Your task to perform on an android device: Search for bose soundlink mini on ebay.com, select the first entry, add it to the cart, then select checkout. Image 0: 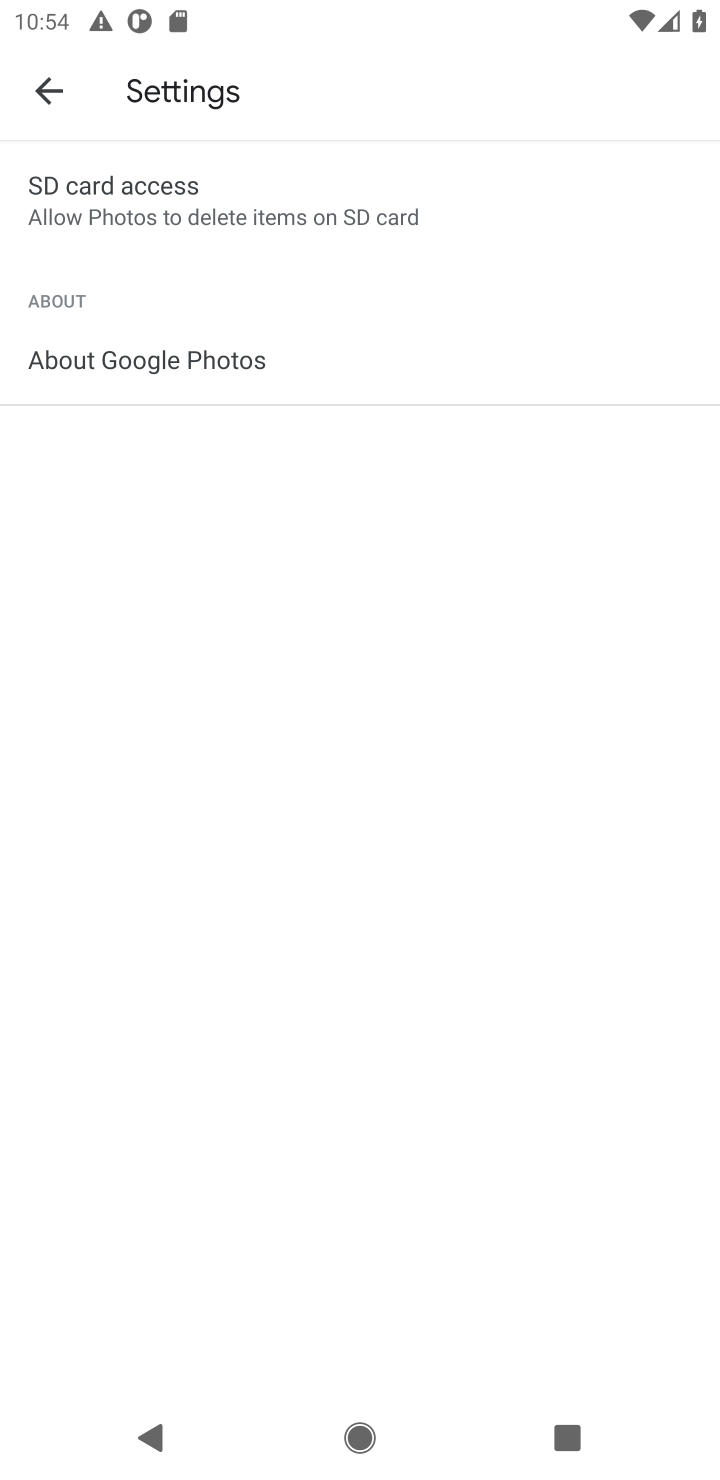
Step 0: press home button
Your task to perform on an android device: Search for bose soundlink mini on ebay.com, select the first entry, add it to the cart, then select checkout. Image 1: 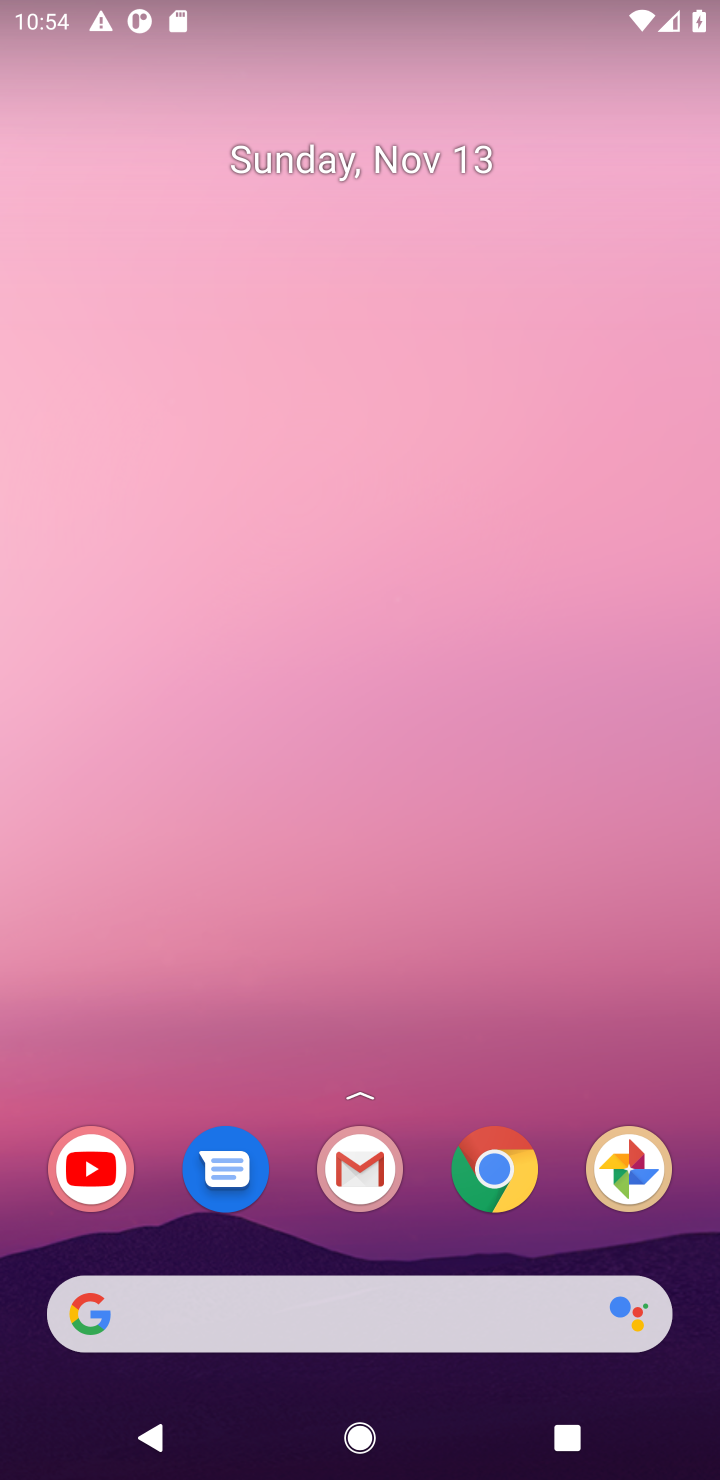
Step 1: drag from (420, 1254) to (430, 206)
Your task to perform on an android device: Search for bose soundlink mini on ebay.com, select the first entry, add it to the cart, then select checkout. Image 2: 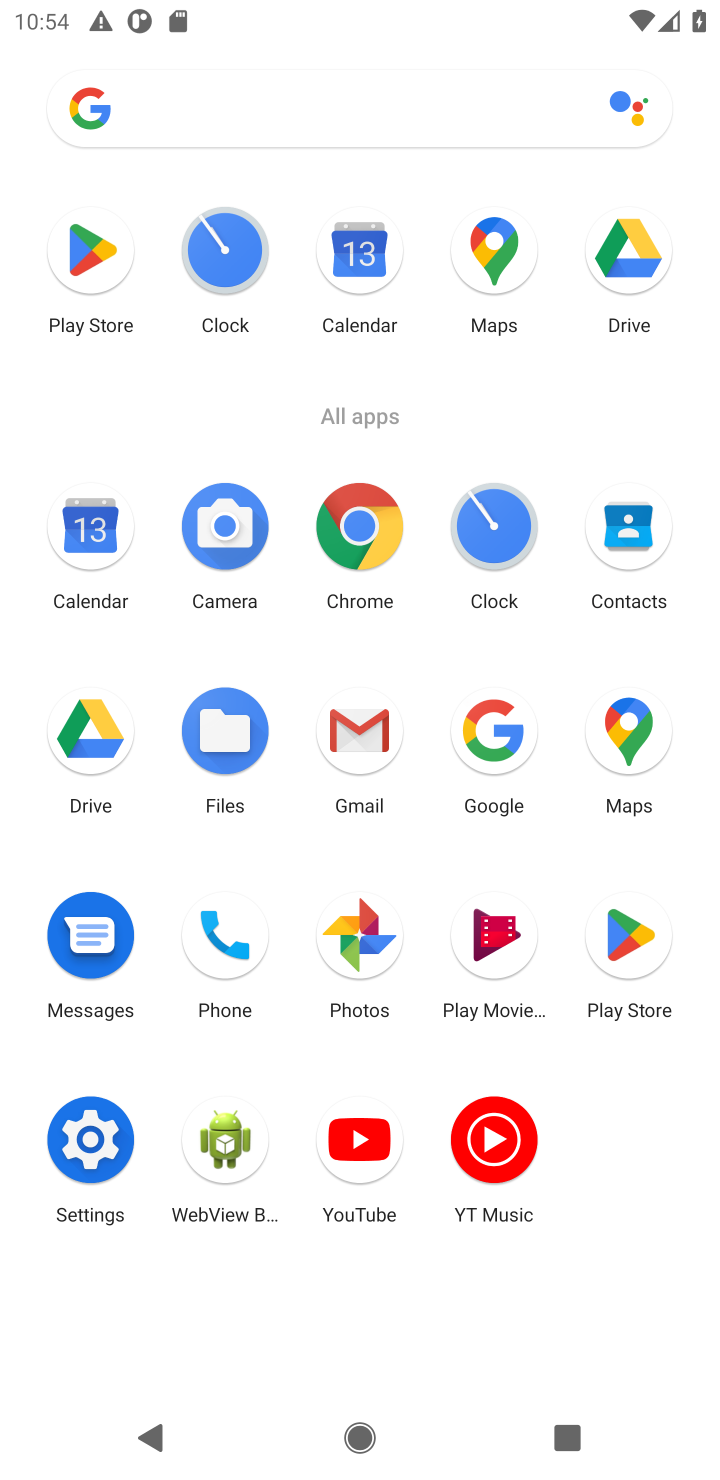
Step 2: click (359, 530)
Your task to perform on an android device: Search for bose soundlink mini on ebay.com, select the first entry, add it to the cart, then select checkout. Image 3: 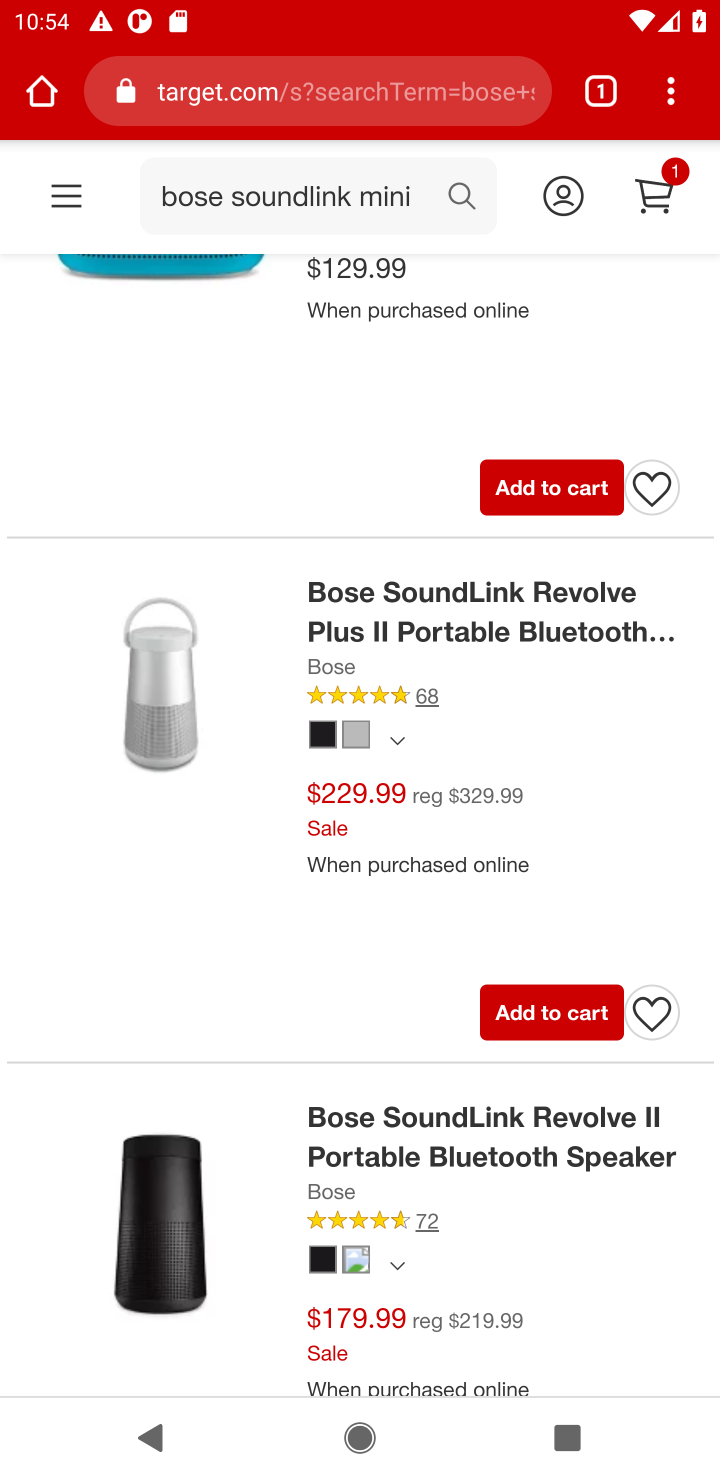
Step 3: click (359, 101)
Your task to perform on an android device: Search for bose soundlink mini on ebay.com, select the first entry, add it to the cart, then select checkout. Image 4: 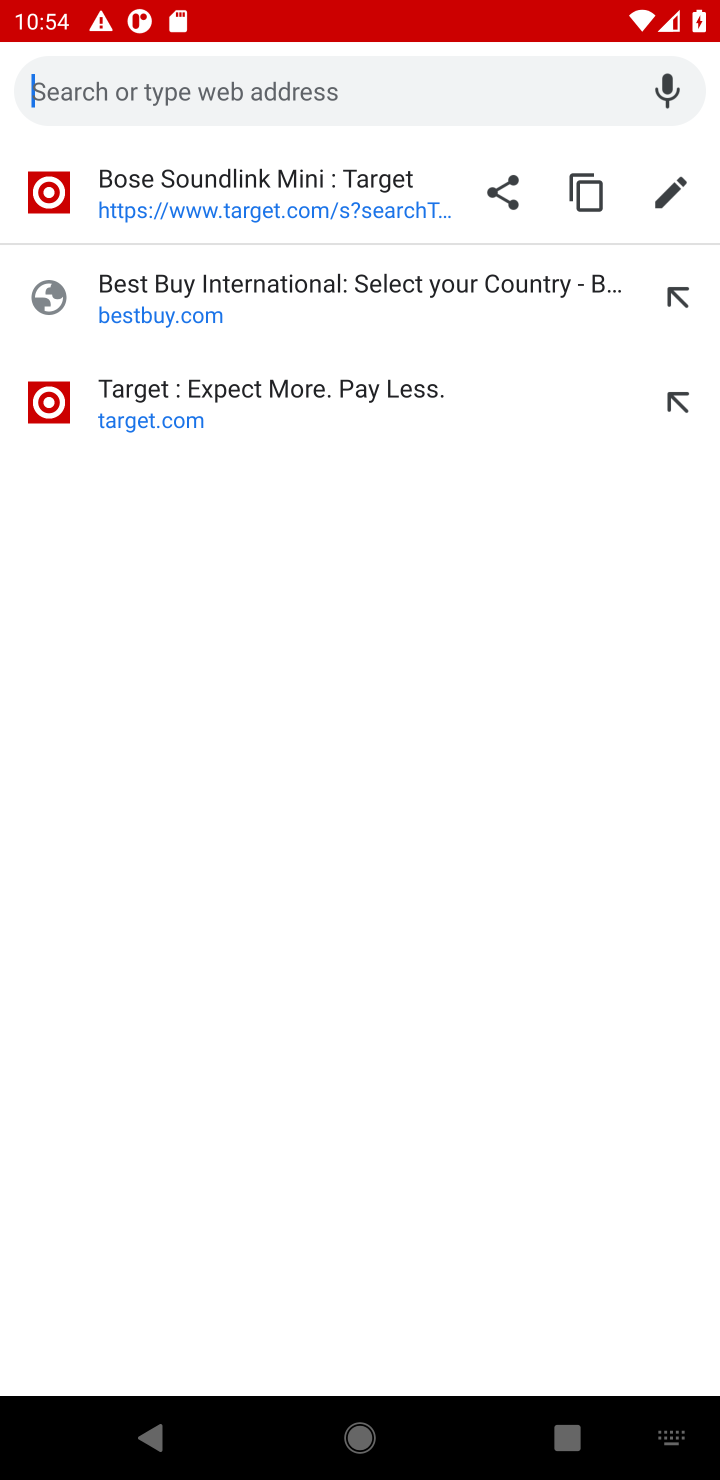
Step 4: type "ebay.com"
Your task to perform on an android device: Search for bose soundlink mini on ebay.com, select the first entry, add it to the cart, then select checkout. Image 5: 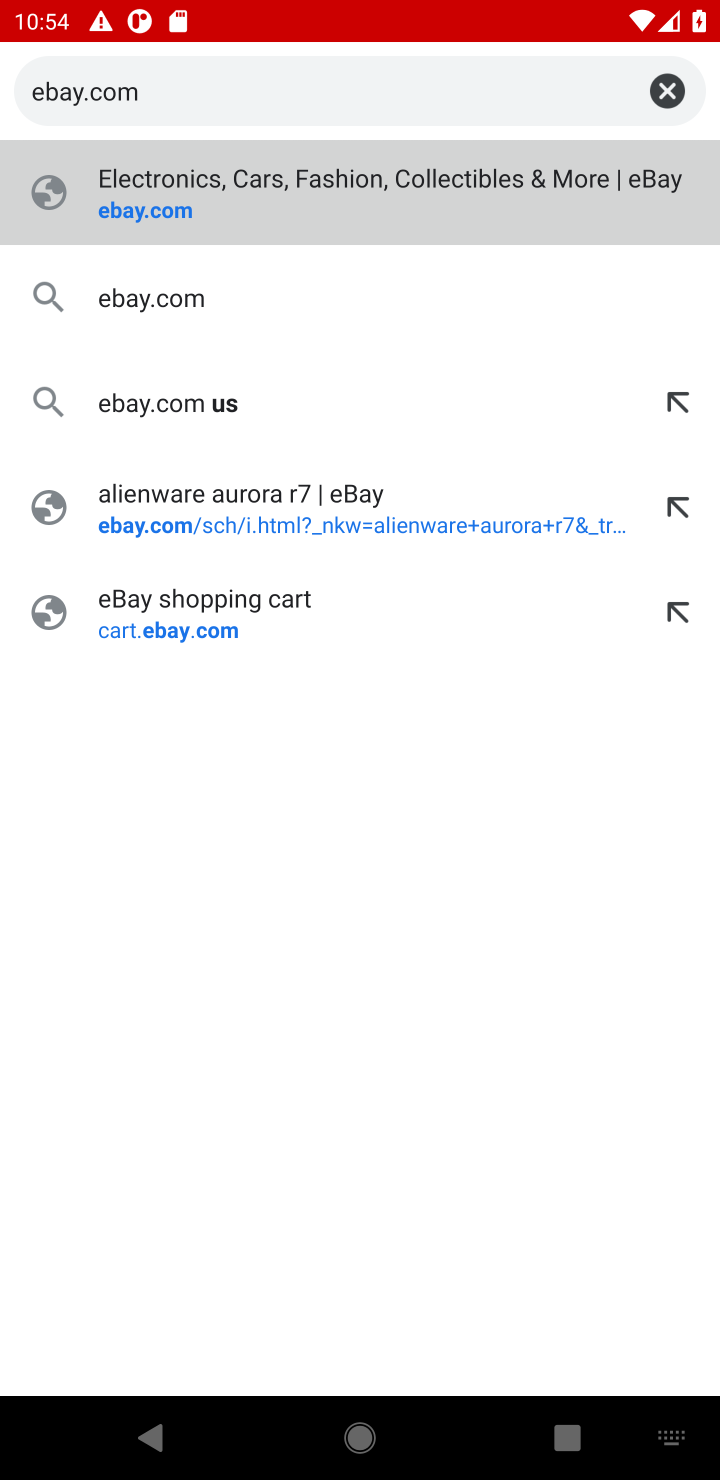
Step 5: press enter
Your task to perform on an android device: Search for bose soundlink mini on ebay.com, select the first entry, add it to the cart, then select checkout. Image 6: 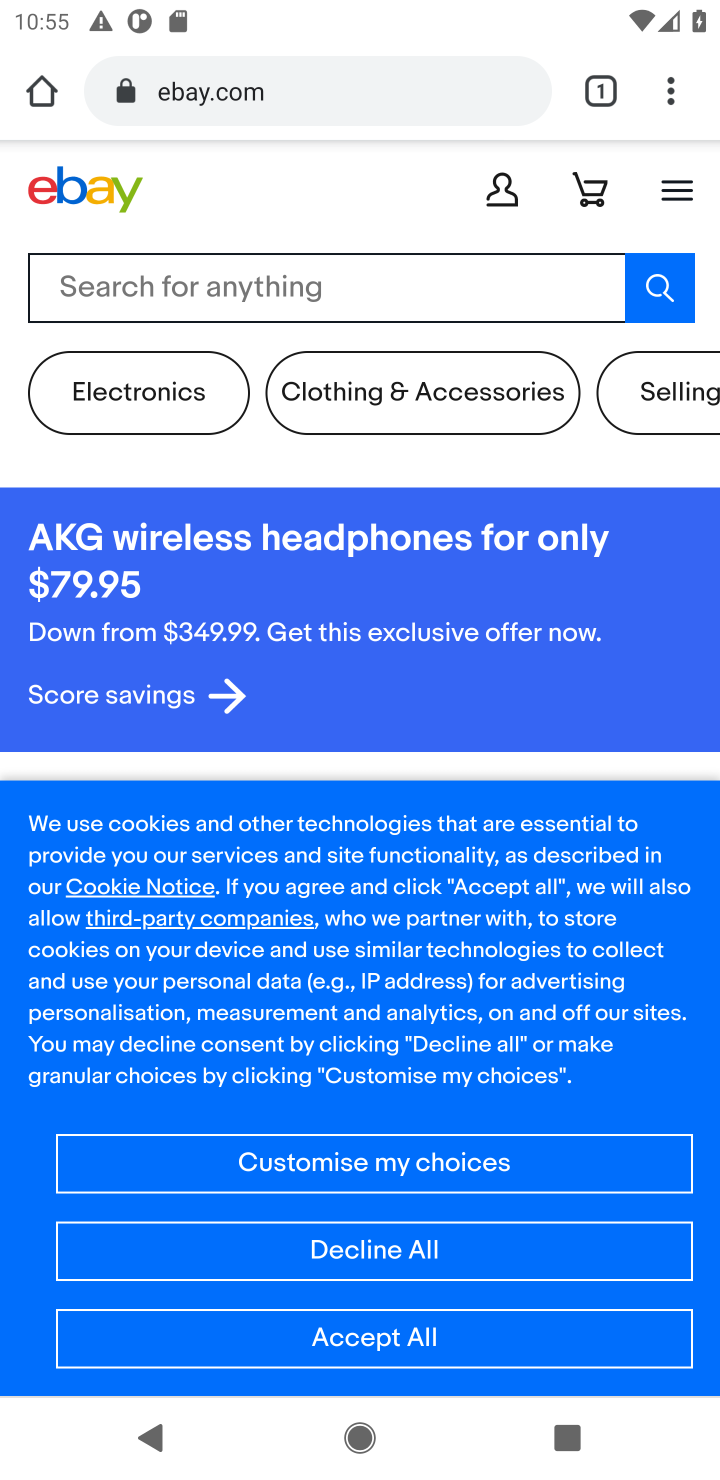
Step 6: click (299, 286)
Your task to perform on an android device: Search for bose soundlink mini on ebay.com, select the first entry, add it to the cart, then select checkout. Image 7: 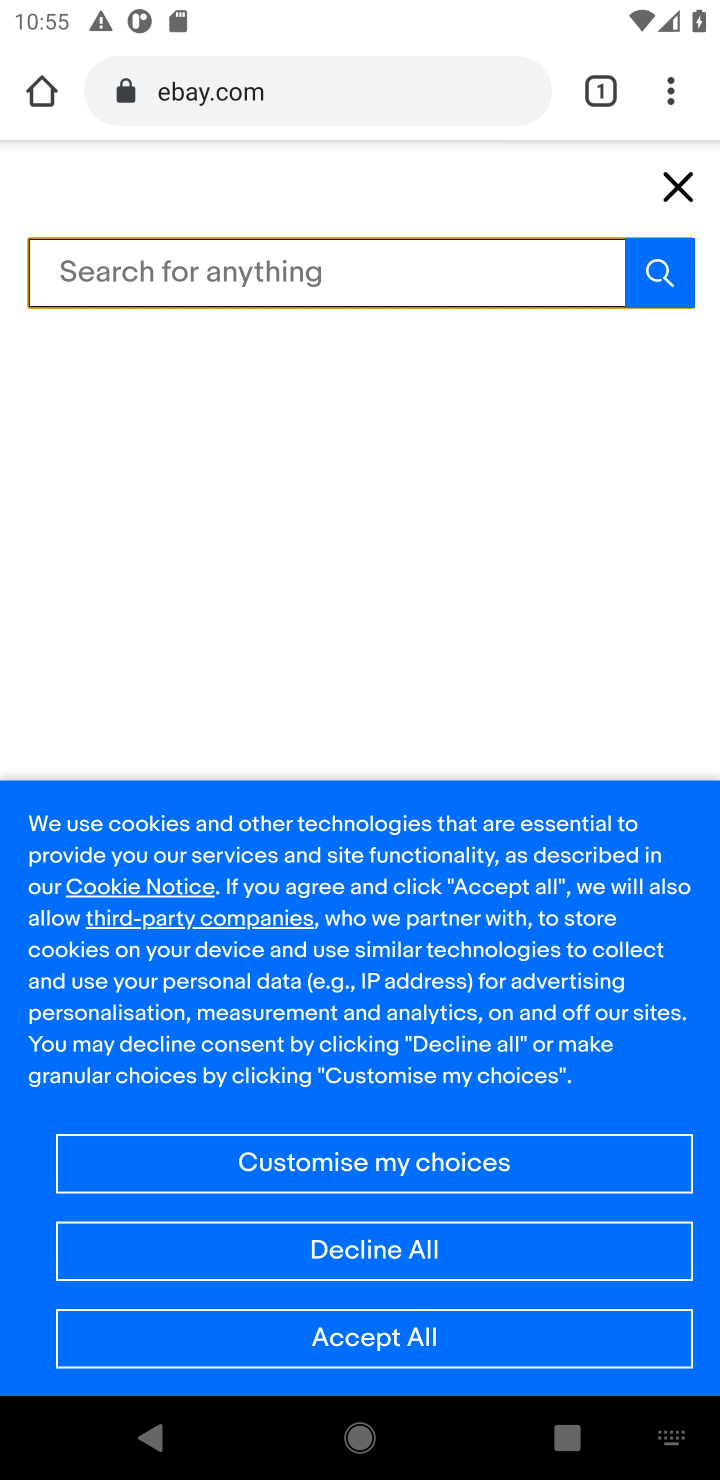
Step 7: type "bose soundlink mini"
Your task to perform on an android device: Search for bose soundlink mini on ebay.com, select the first entry, add it to the cart, then select checkout. Image 8: 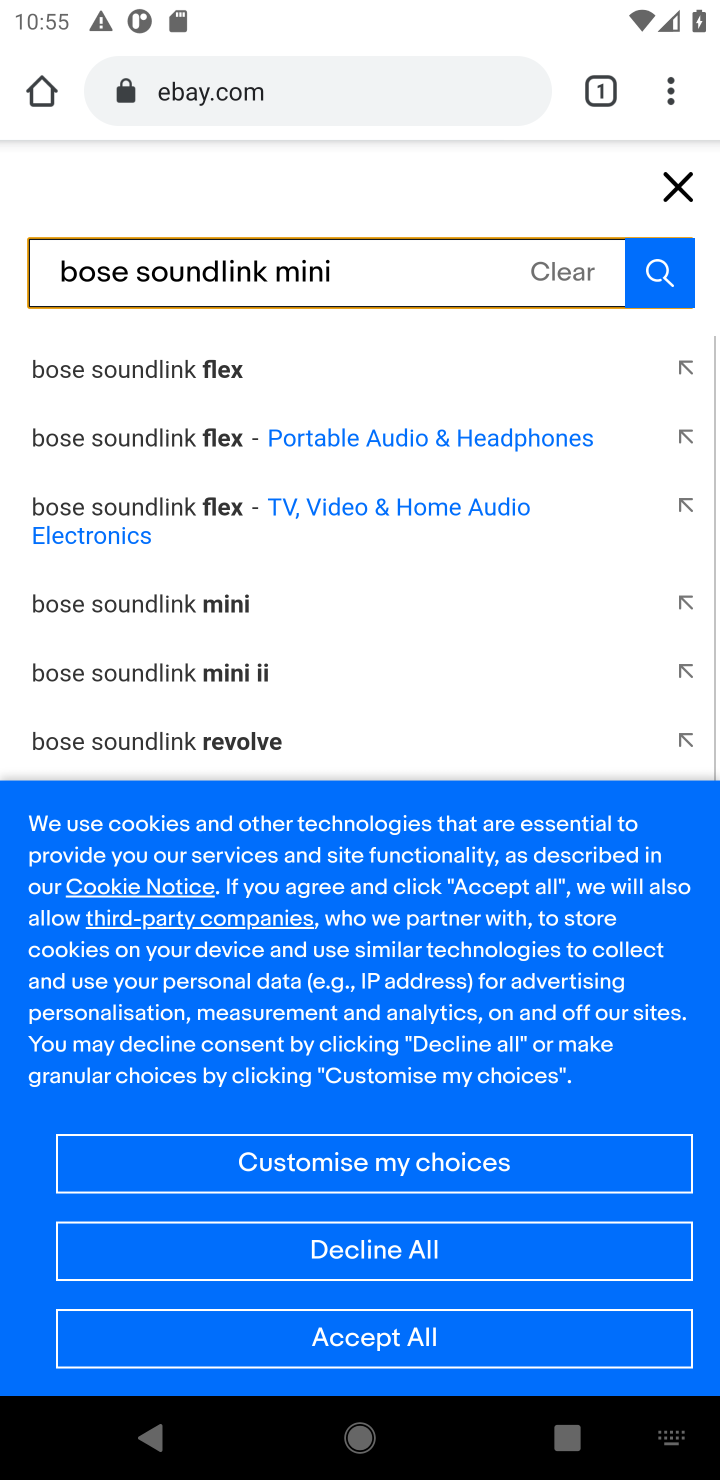
Step 8: press enter
Your task to perform on an android device: Search for bose soundlink mini on ebay.com, select the first entry, add it to the cart, then select checkout. Image 9: 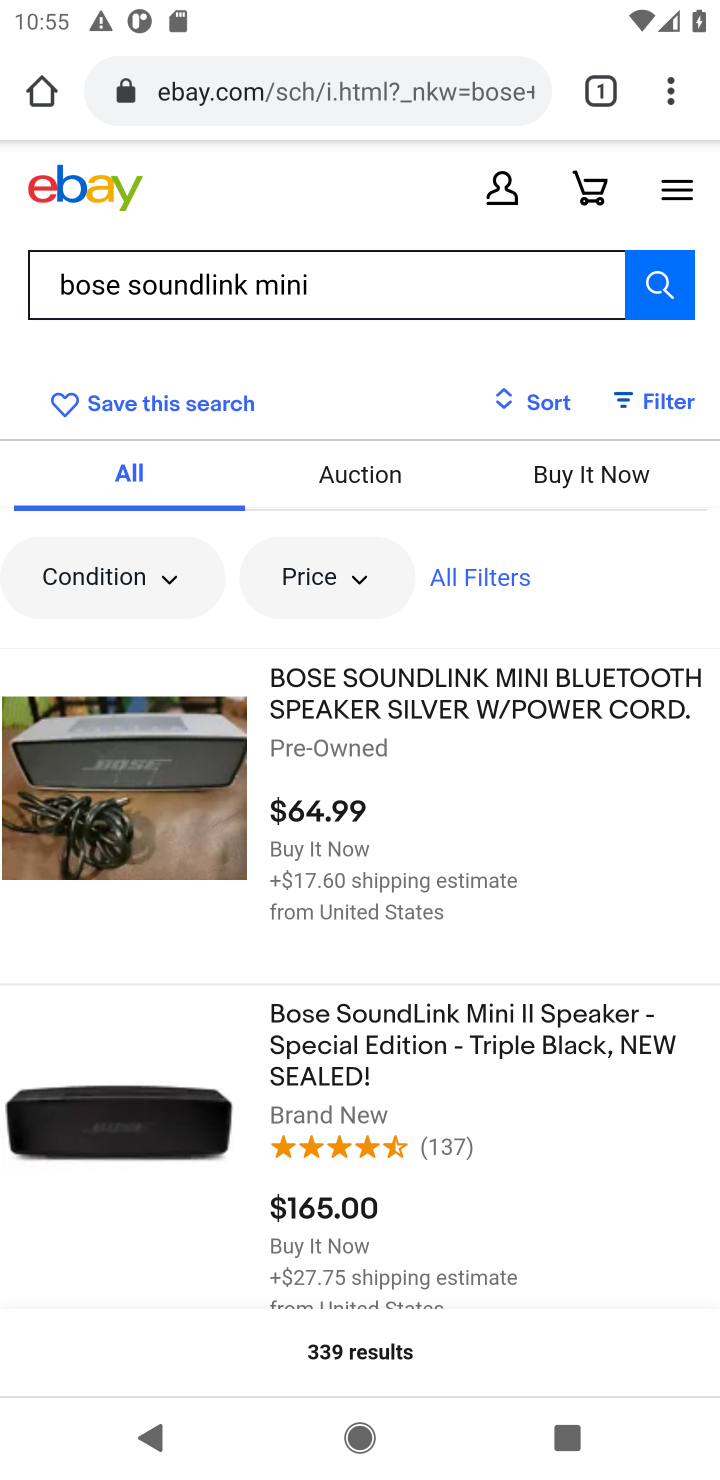
Step 9: click (140, 729)
Your task to perform on an android device: Search for bose soundlink mini on ebay.com, select the first entry, add it to the cart, then select checkout. Image 10: 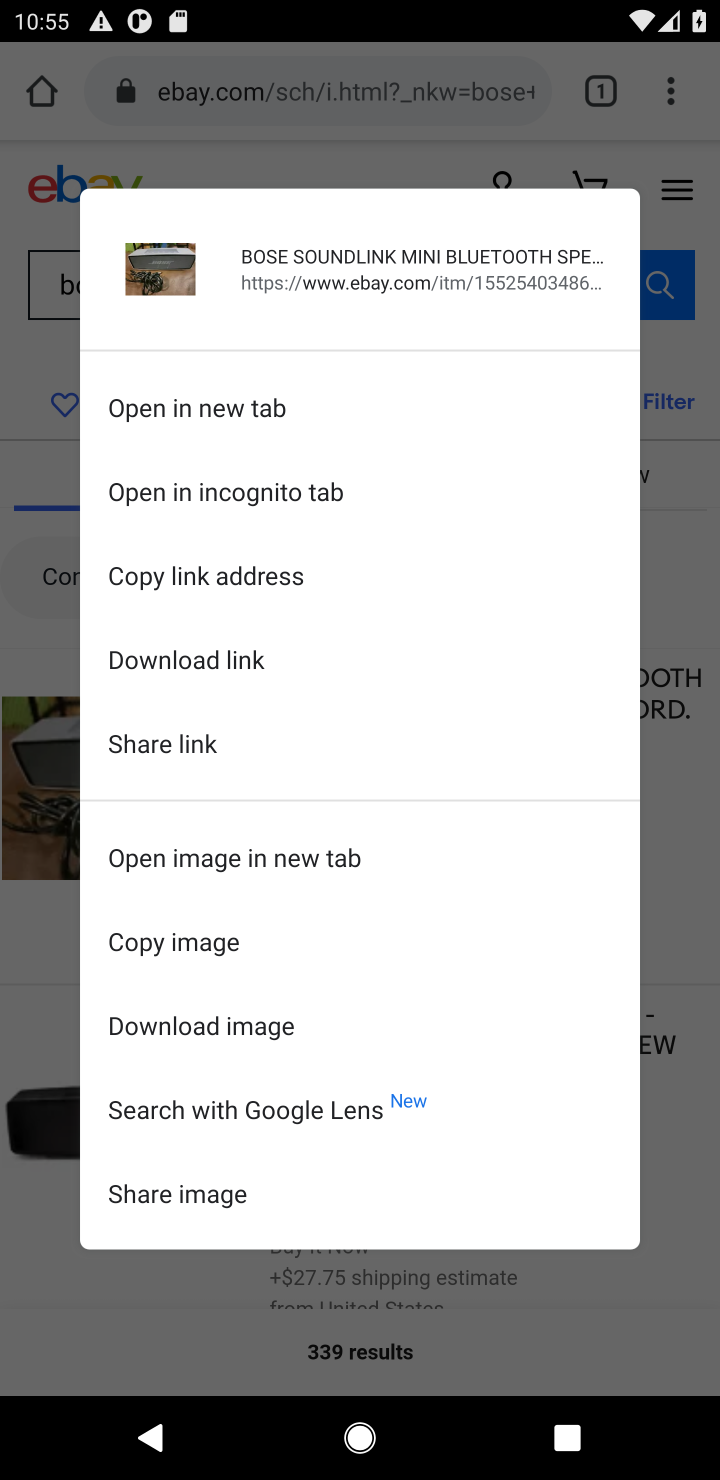
Step 10: click (691, 710)
Your task to perform on an android device: Search for bose soundlink mini on ebay.com, select the first entry, add it to the cart, then select checkout. Image 11: 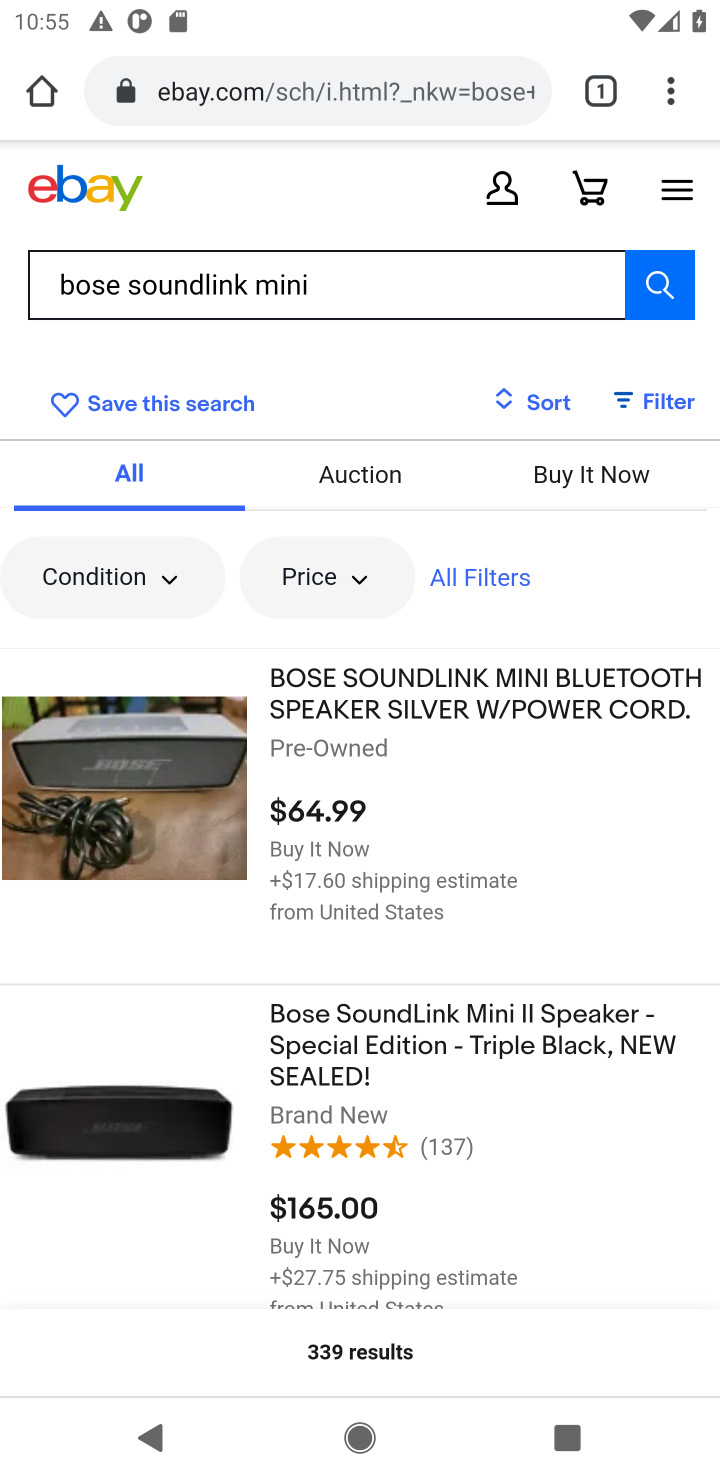
Step 11: click (393, 691)
Your task to perform on an android device: Search for bose soundlink mini on ebay.com, select the first entry, add it to the cart, then select checkout. Image 12: 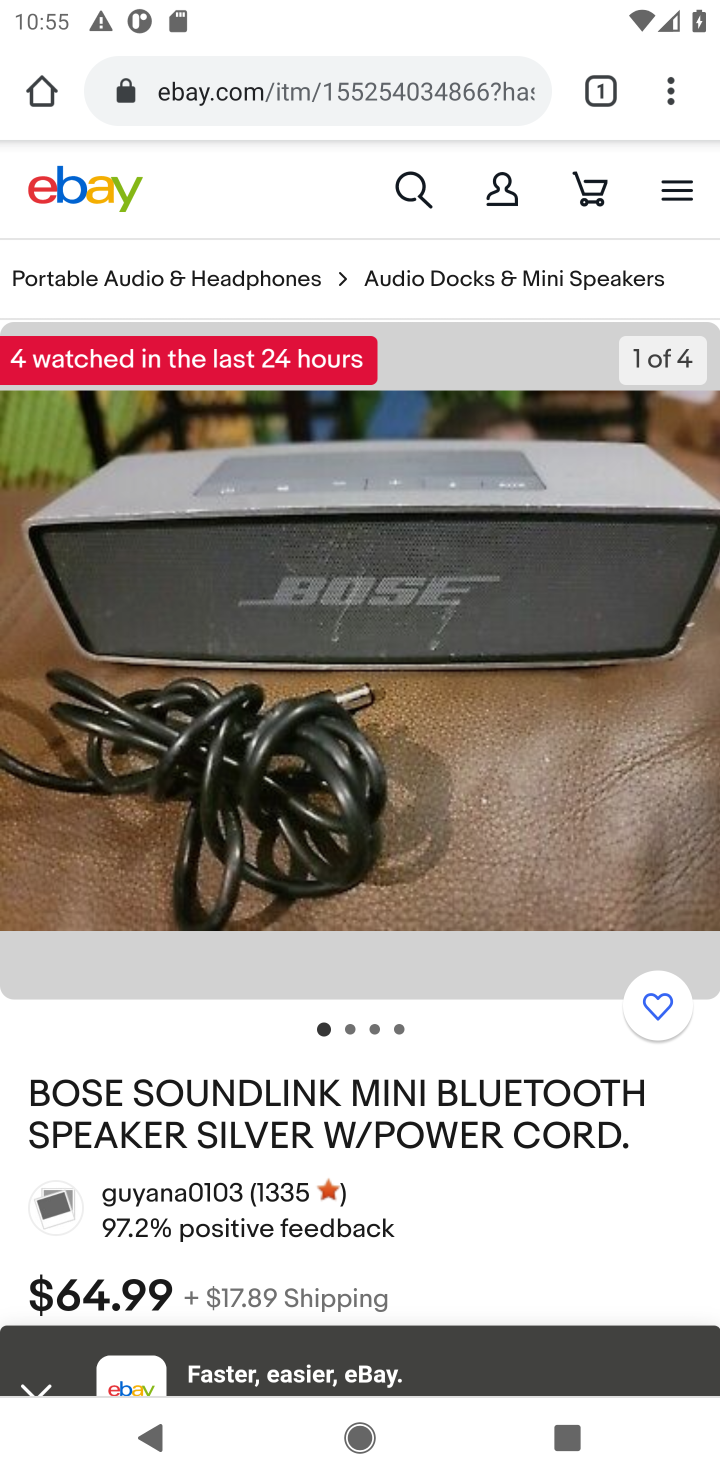
Step 12: drag from (323, 890) to (376, 330)
Your task to perform on an android device: Search for bose soundlink mini on ebay.com, select the first entry, add it to the cart, then select checkout. Image 13: 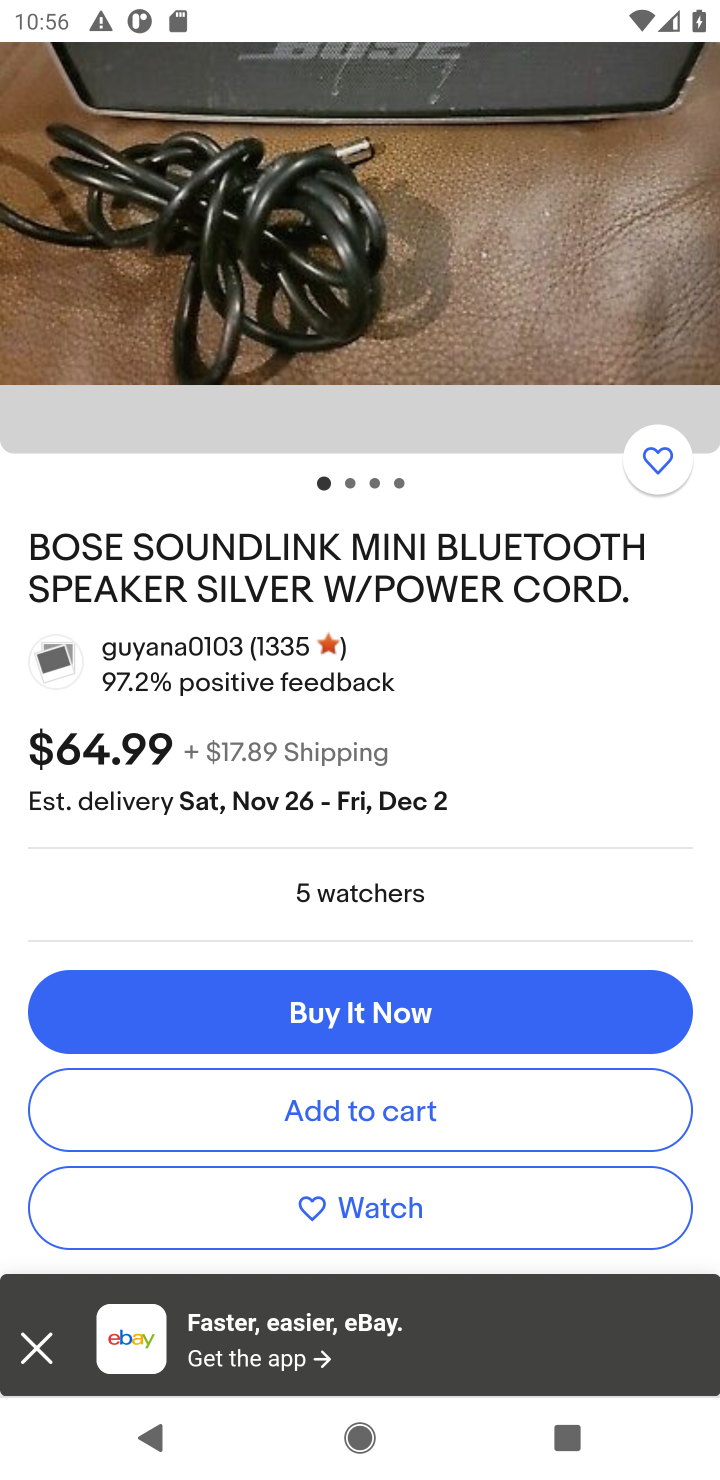
Step 13: click (303, 1103)
Your task to perform on an android device: Search for bose soundlink mini on ebay.com, select the first entry, add it to the cart, then select checkout. Image 14: 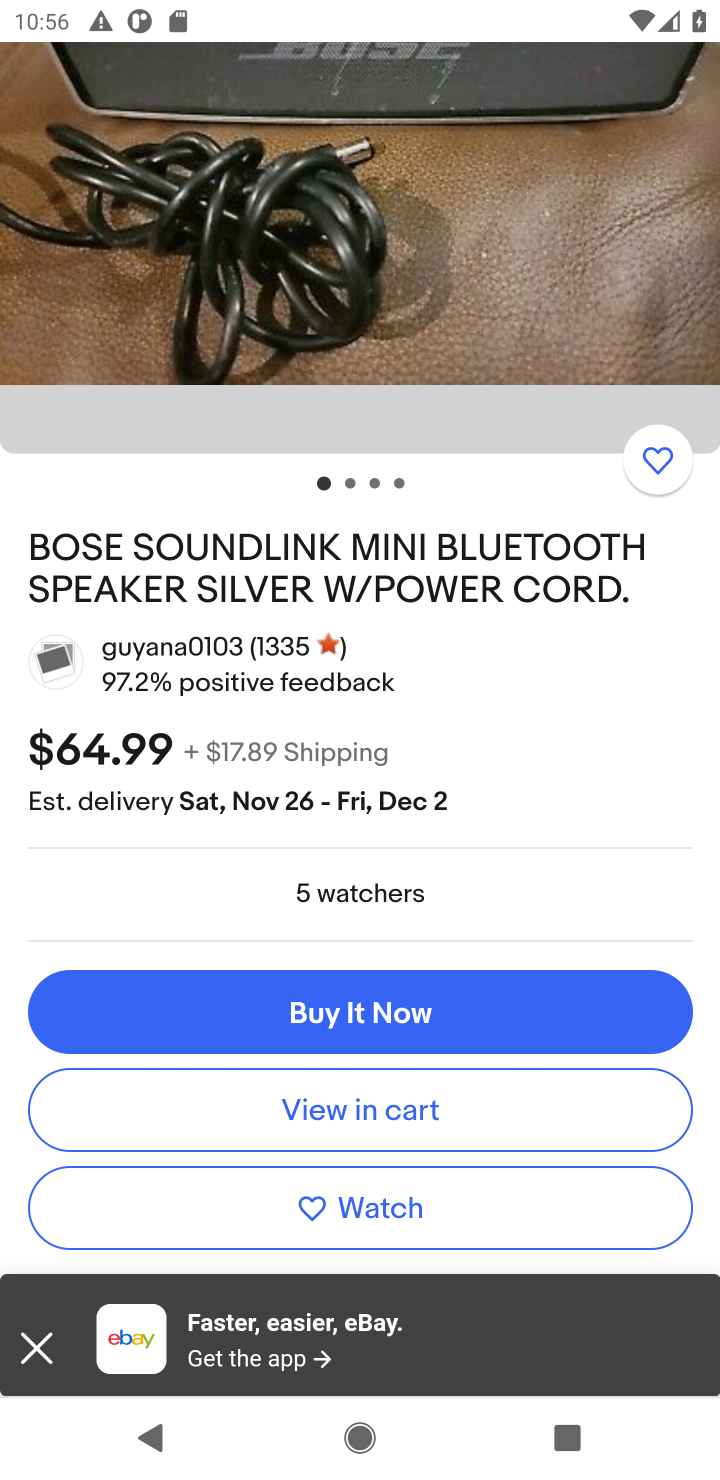
Step 14: click (315, 1116)
Your task to perform on an android device: Search for bose soundlink mini on ebay.com, select the first entry, add it to the cart, then select checkout. Image 15: 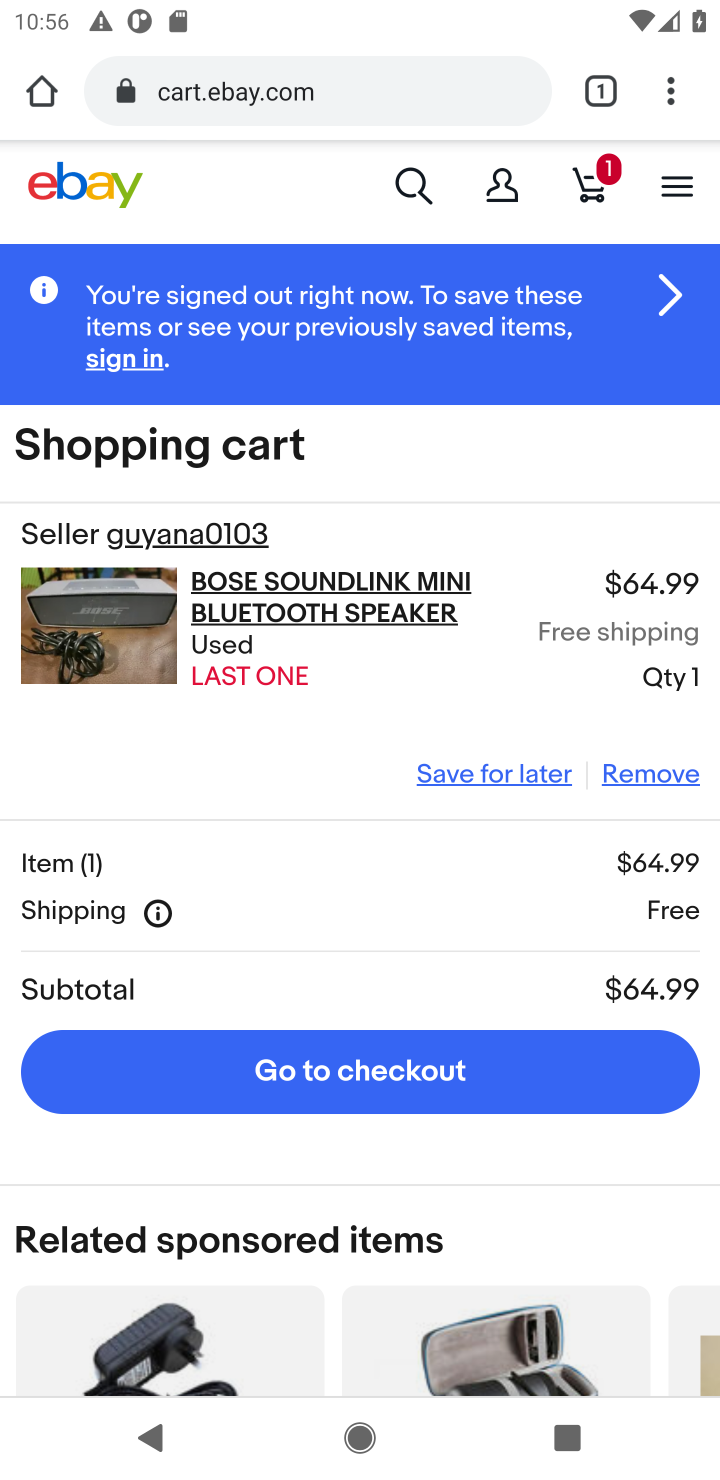
Step 15: click (349, 1068)
Your task to perform on an android device: Search for bose soundlink mini on ebay.com, select the first entry, add it to the cart, then select checkout. Image 16: 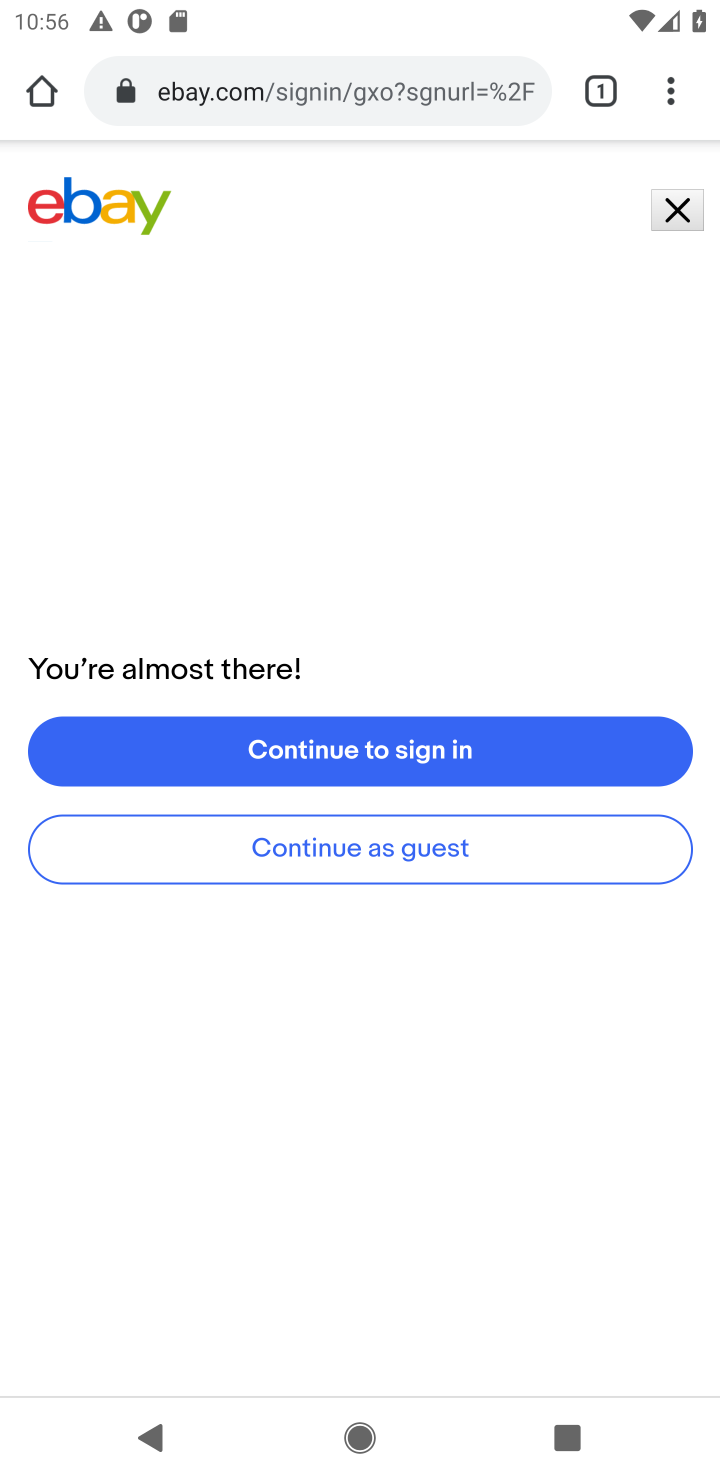
Step 16: task complete